Your task to perform on an android device: Search for sushi restaurants on Maps Image 0: 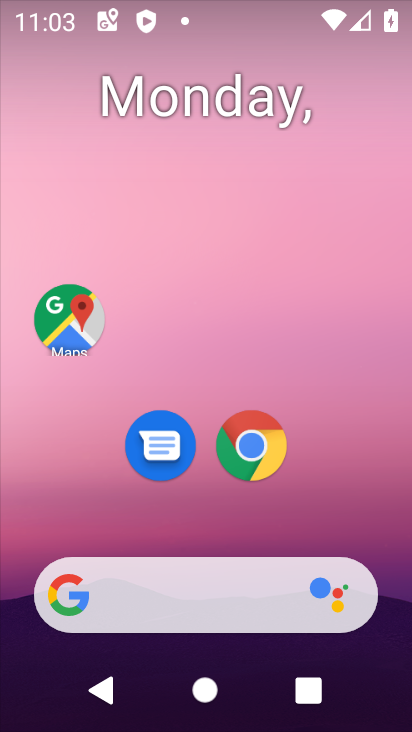
Step 0: click (61, 292)
Your task to perform on an android device: Search for sushi restaurants on Maps Image 1: 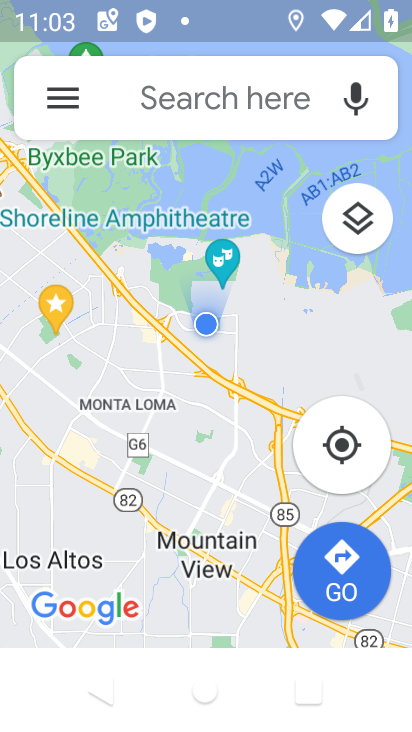
Step 1: click (155, 107)
Your task to perform on an android device: Search for sushi restaurants on Maps Image 2: 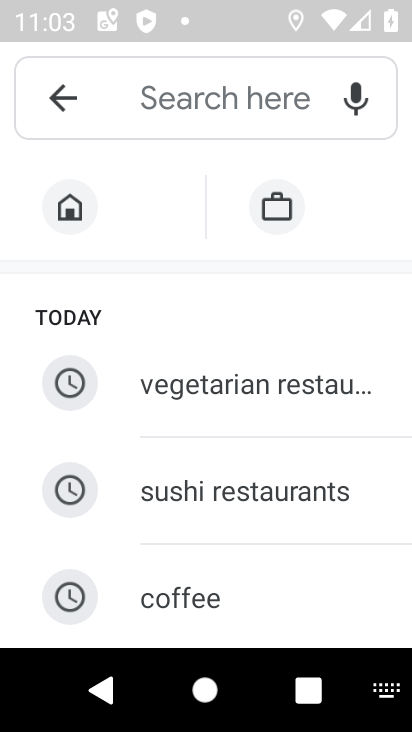
Step 2: click (228, 501)
Your task to perform on an android device: Search for sushi restaurants on Maps Image 3: 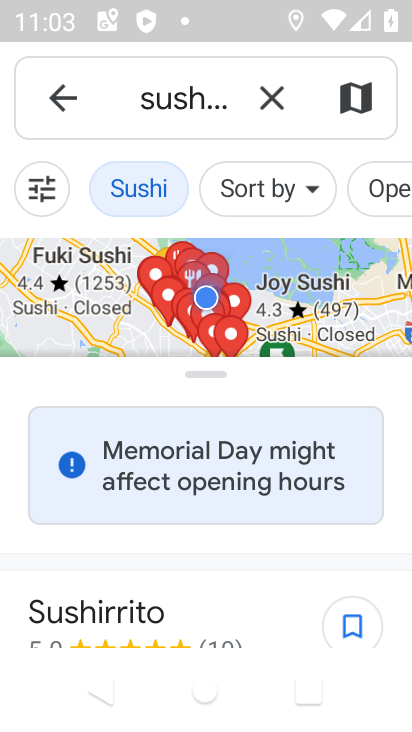
Step 3: task complete